Your task to perform on an android device: open the mobile data screen to see how much data has been used Image 0: 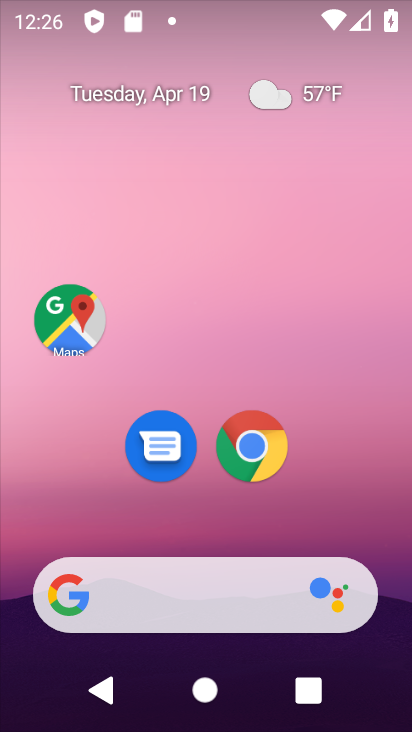
Step 0: drag from (343, 495) to (362, 53)
Your task to perform on an android device: open the mobile data screen to see how much data has been used Image 1: 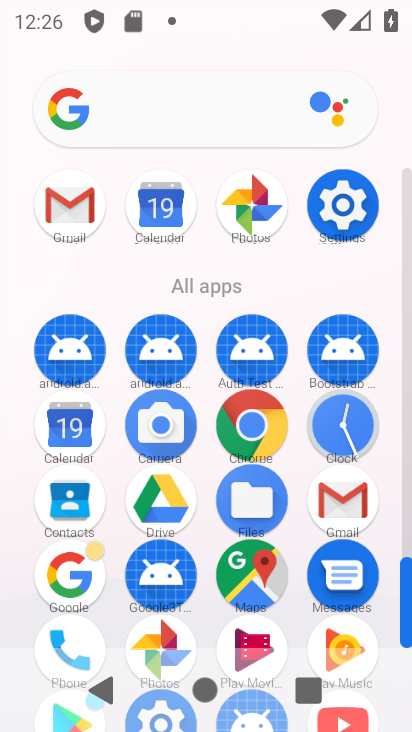
Step 1: click (347, 190)
Your task to perform on an android device: open the mobile data screen to see how much data has been used Image 2: 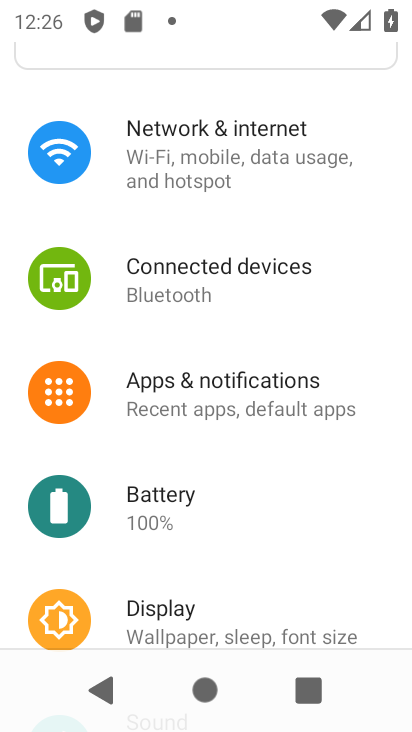
Step 2: click (273, 148)
Your task to perform on an android device: open the mobile data screen to see how much data has been used Image 3: 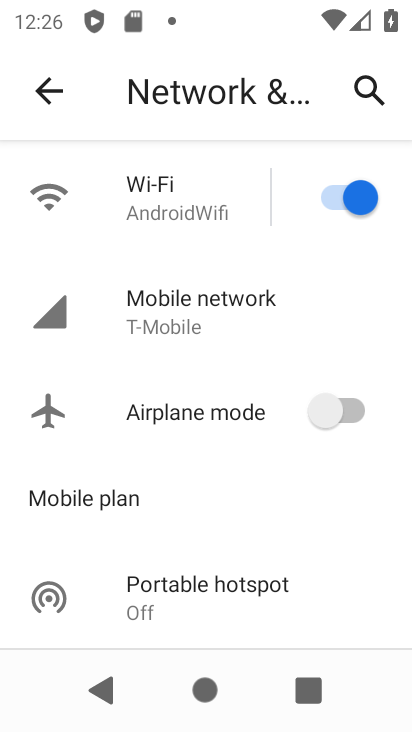
Step 3: click (236, 299)
Your task to perform on an android device: open the mobile data screen to see how much data has been used Image 4: 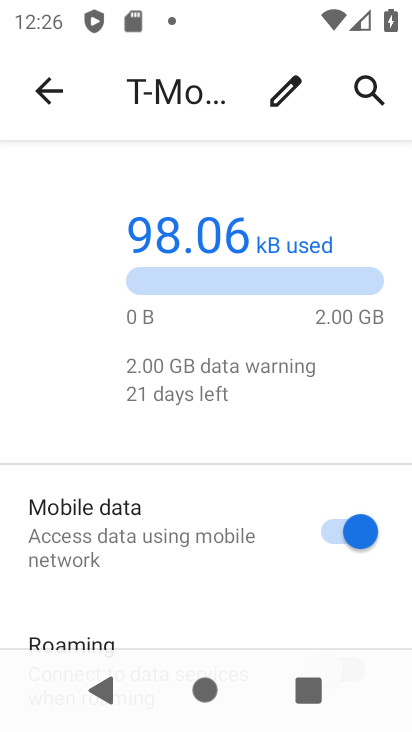
Step 4: task complete